Your task to perform on an android device: Go to accessibility settings Image 0: 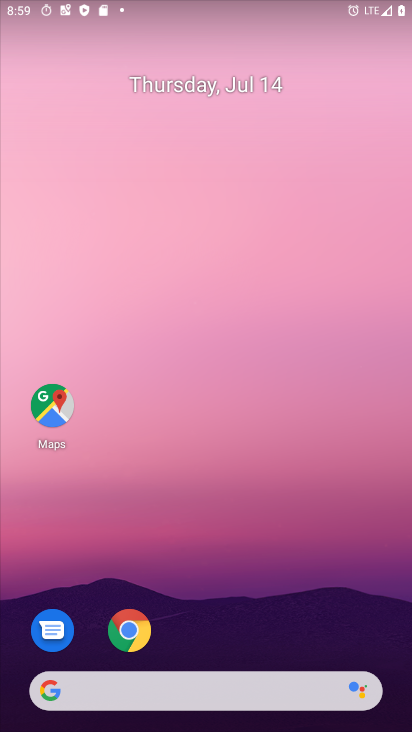
Step 0: drag from (182, 697) to (172, 172)
Your task to perform on an android device: Go to accessibility settings Image 1: 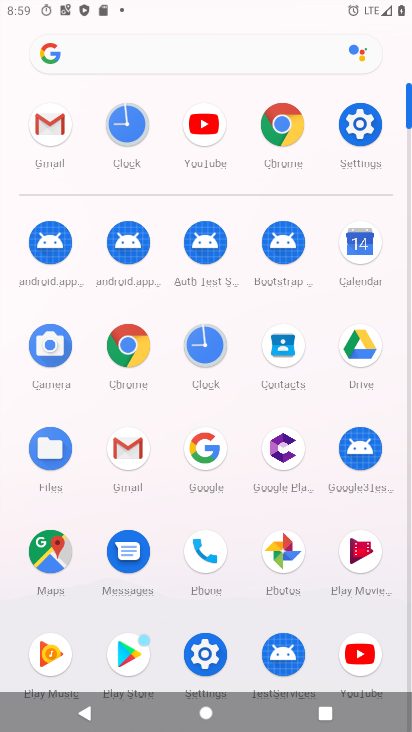
Step 1: click (361, 121)
Your task to perform on an android device: Go to accessibility settings Image 2: 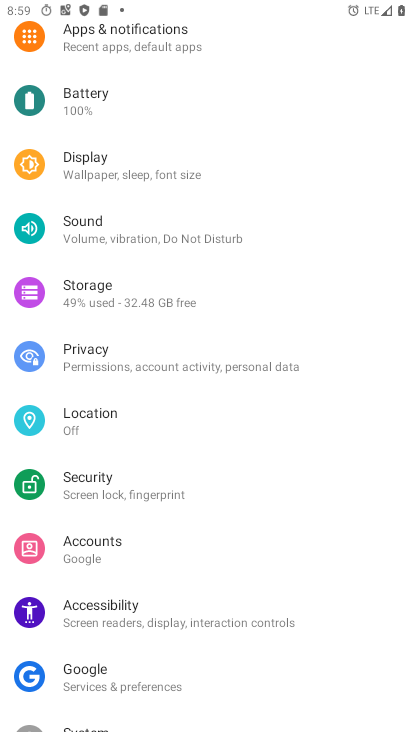
Step 2: click (90, 620)
Your task to perform on an android device: Go to accessibility settings Image 3: 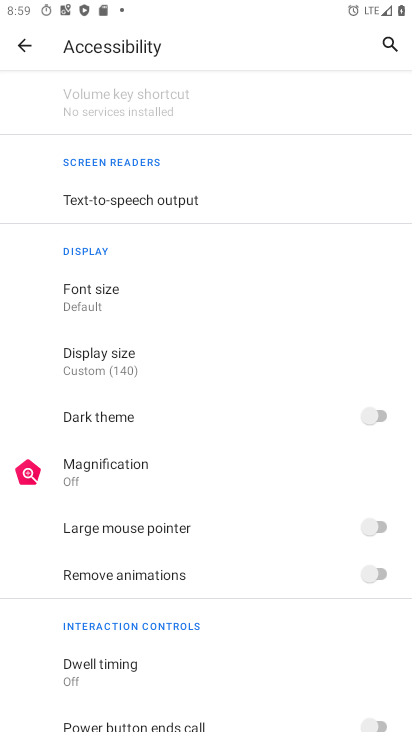
Step 3: task complete